Your task to perform on an android device: turn on data saver in the chrome app Image 0: 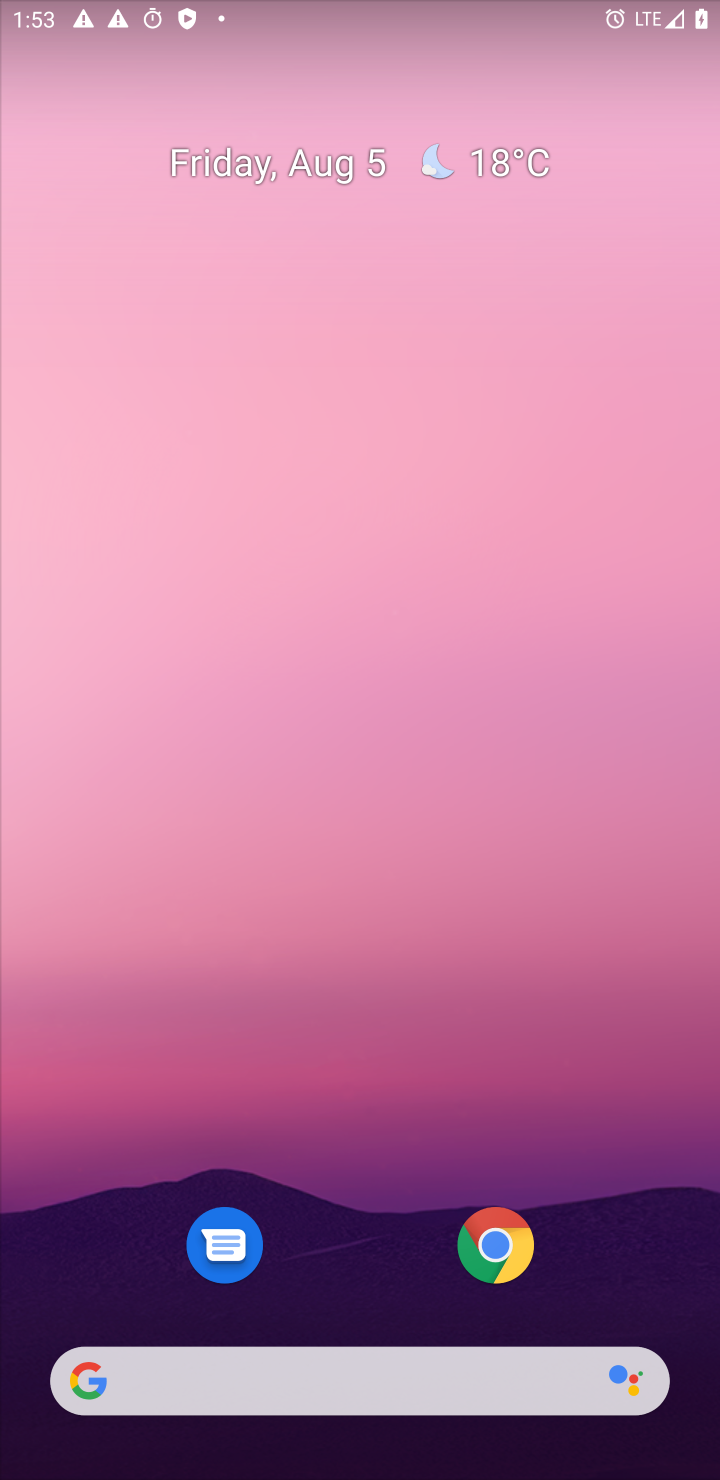
Step 0: press home button
Your task to perform on an android device: turn on data saver in the chrome app Image 1: 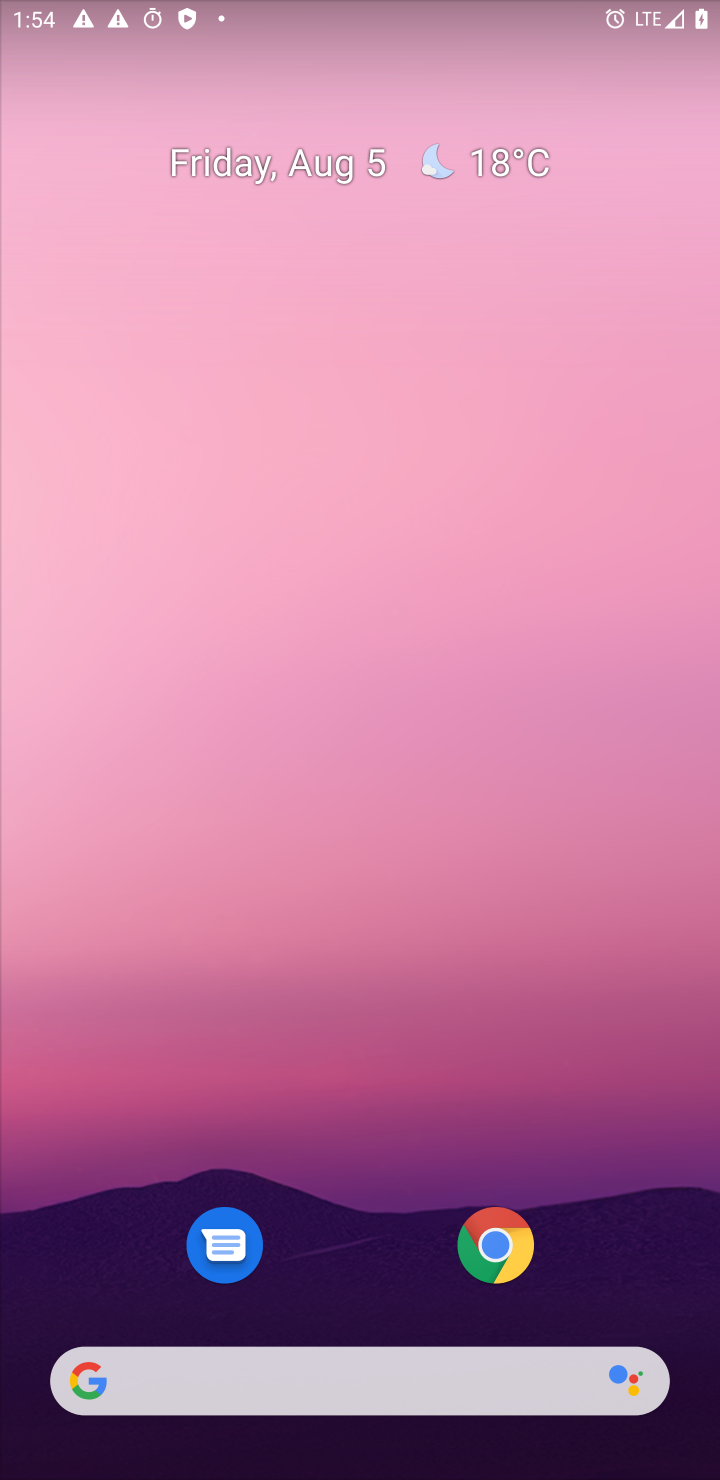
Step 1: click (502, 1227)
Your task to perform on an android device: turn on data saver in the chrome app Image 2: 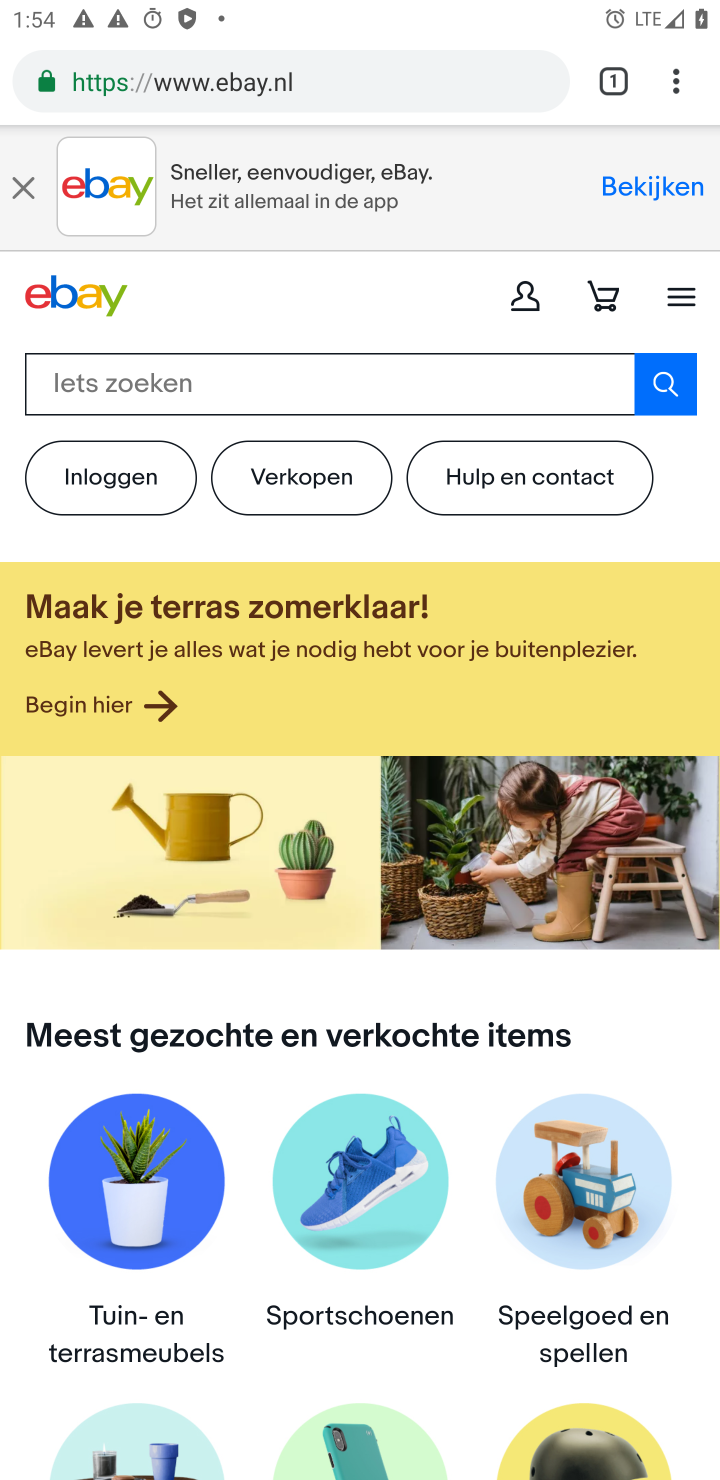
Step 2: drag from (682, 72) to (426, 1067)
Your task to perform on an android device: turn on data saver in the chrome app Image 3: 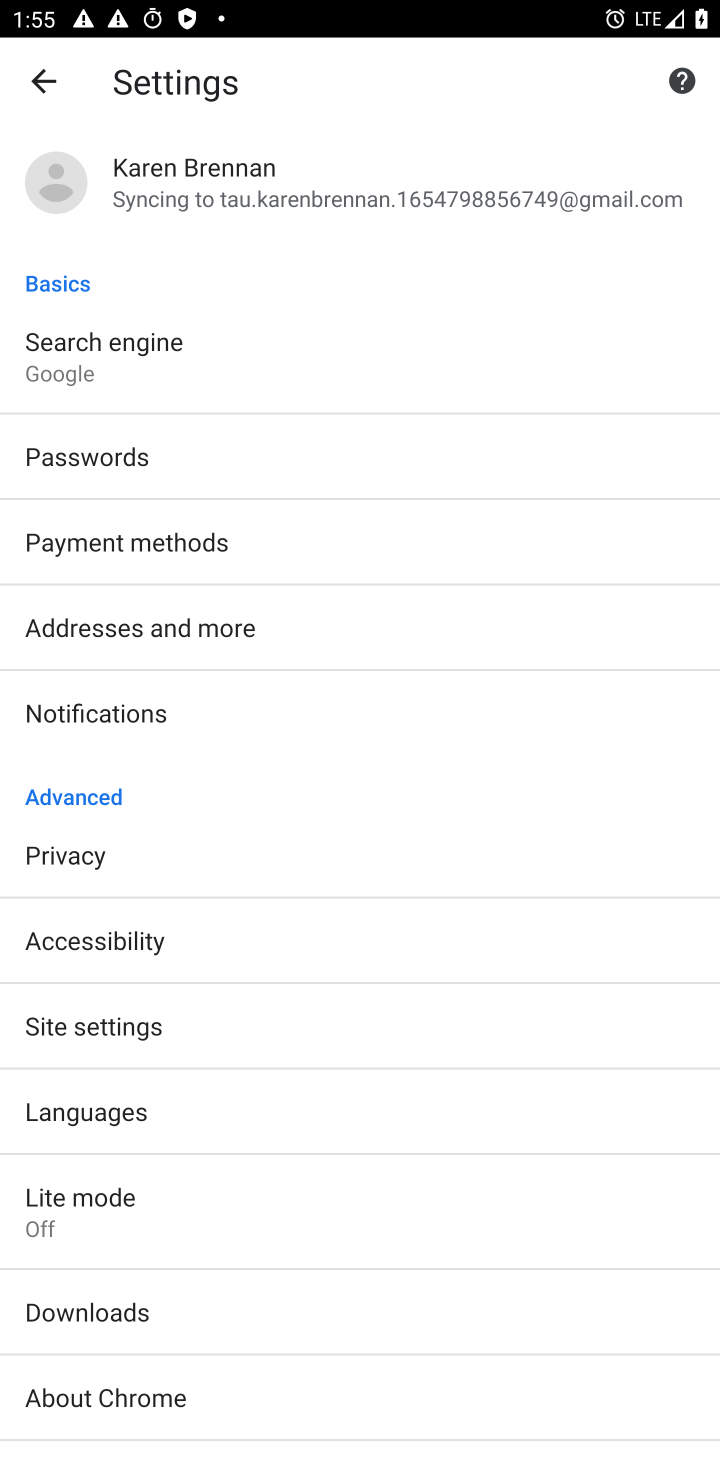
Step 3: click (88, 1207)
Your task to perform on an android device: turn on data saver in the chrome app Image 4: 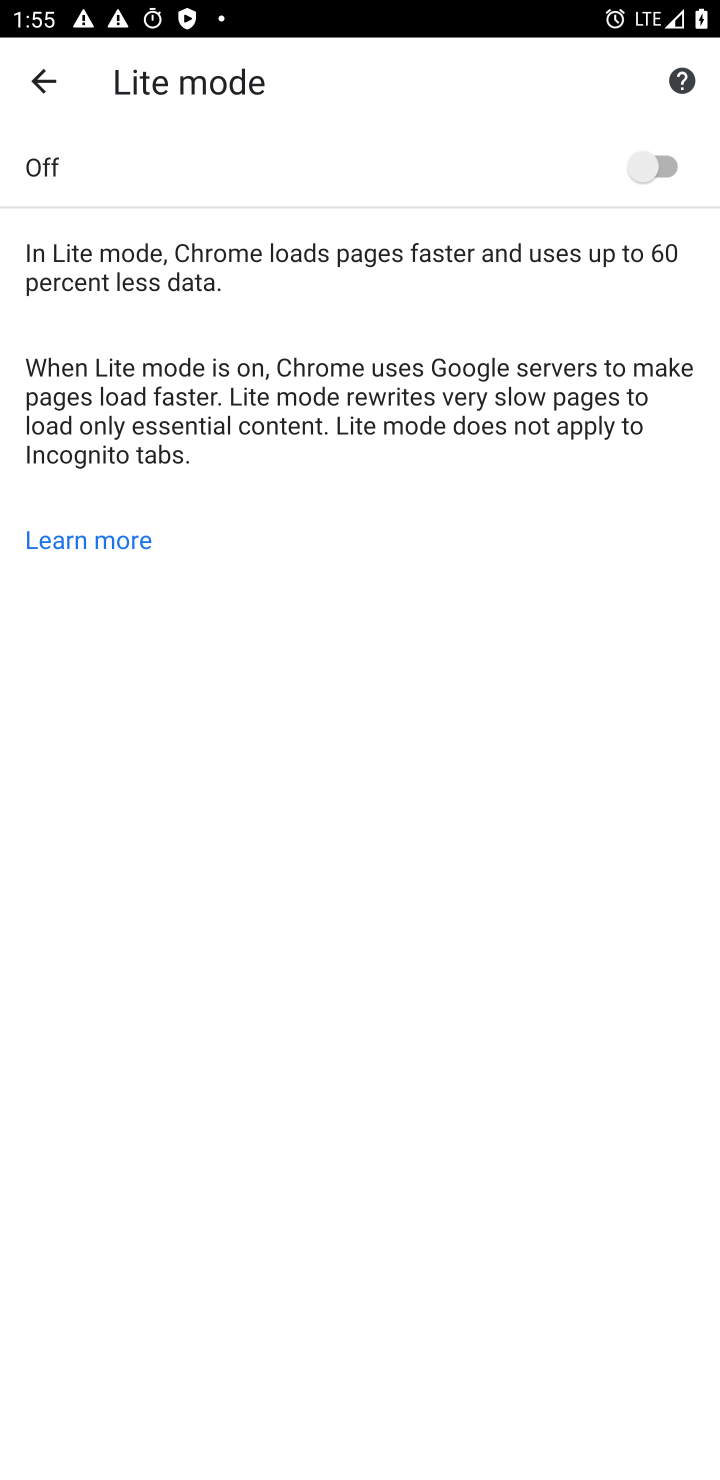
Step 4: click (649, 161)
Your task to perform on an android device: turn on data saver in the chrome app Image 5: 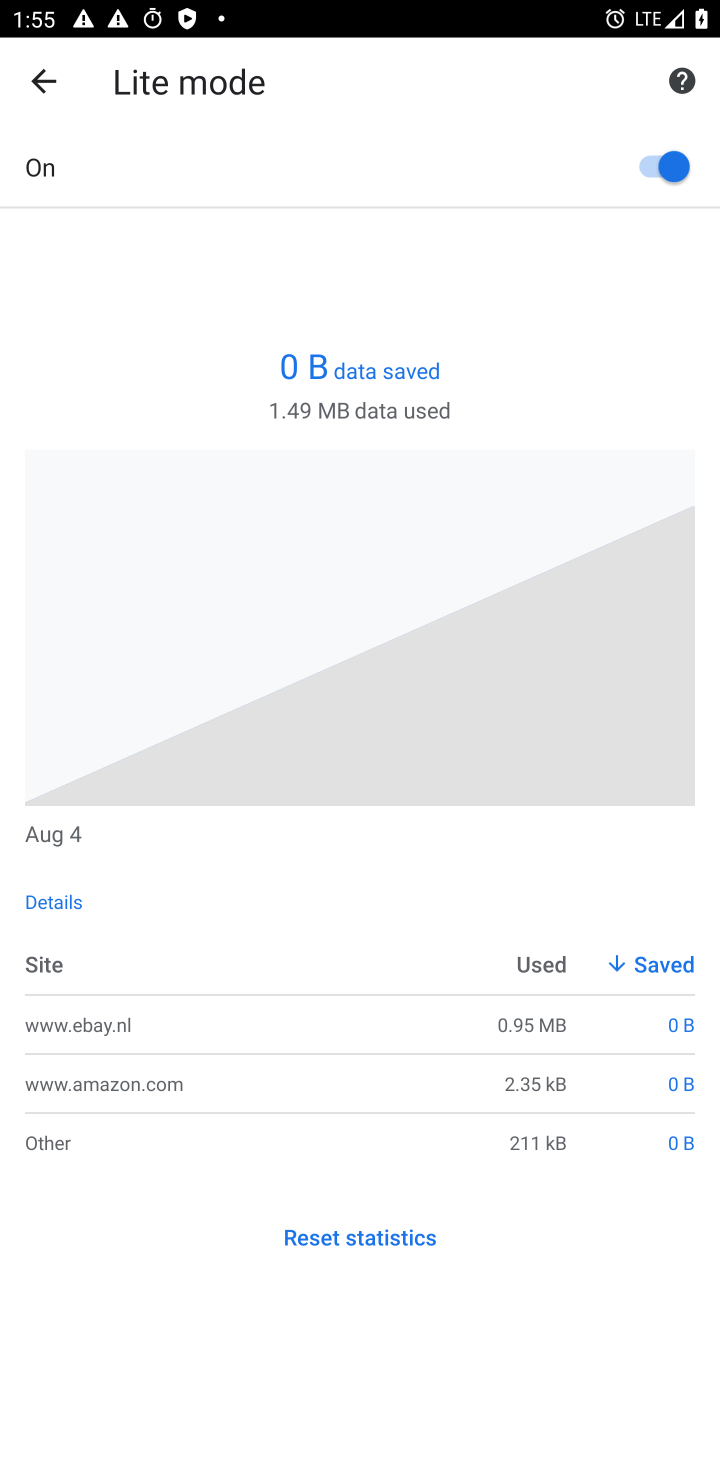
Step 5: task complete